Your task to perform on an android device: delete browsing data in the chrome app Image 0: 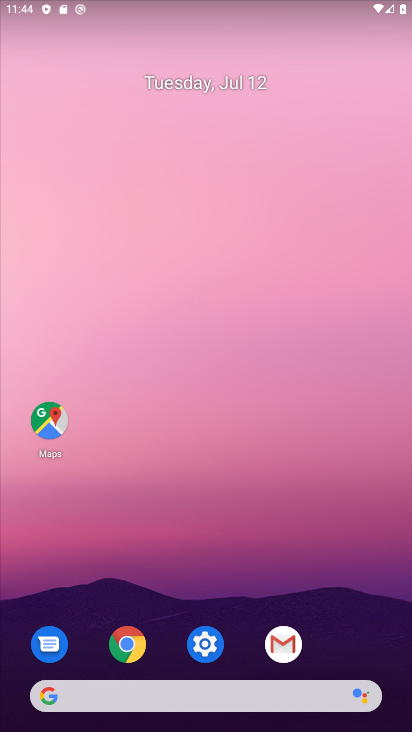
Step 0: drag from (275, 700) to (371, 155)
Your task to perform on an android device: delete browsing data in the chrome app Image 1: 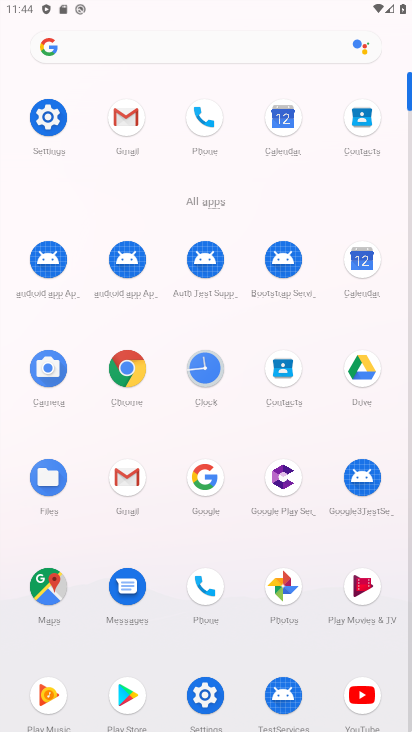
Step 1: click (129, 374)
Your task to perform on an android device: delete browsing data in the chrome app Image 2: 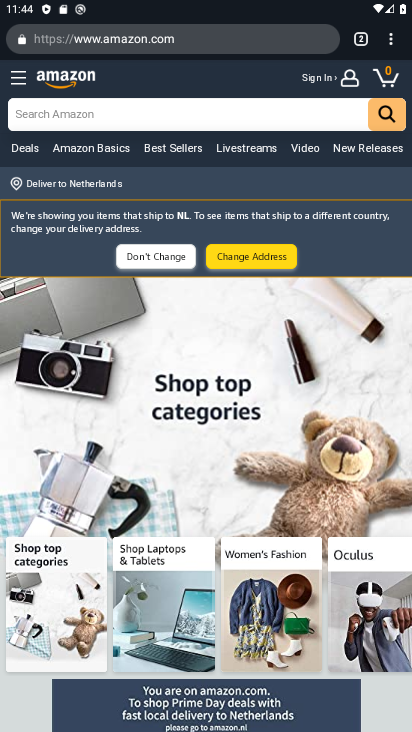
Step 2: click (386, 31)
Your task to perform on an android device: delete browsing data in the chrome app Image 3: 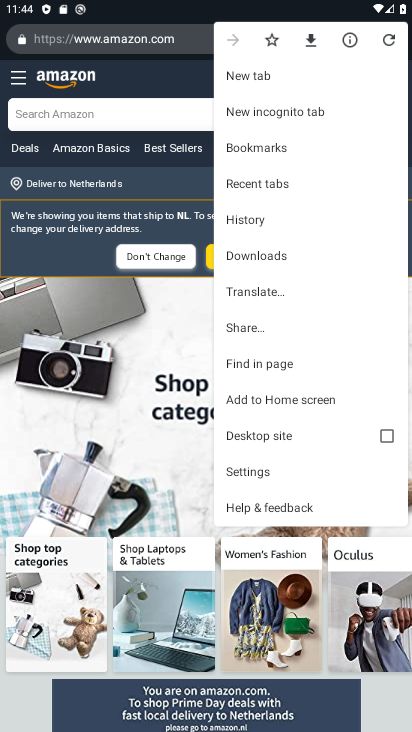
Step 3: click (262, 222)
Your task to perform on an android device: delete browsing data in the chrome app Image 4: 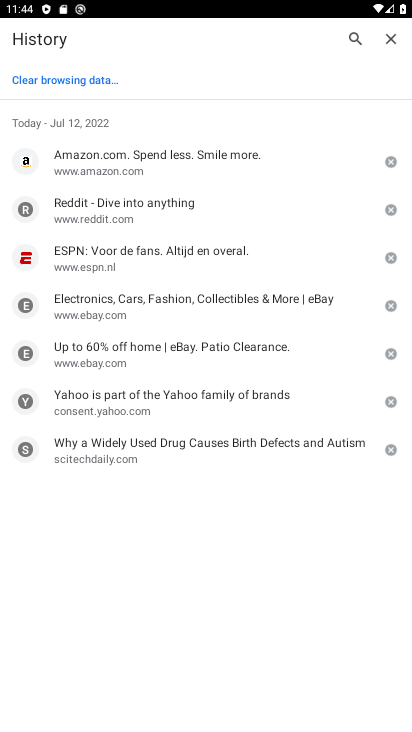
Step 4: click (54, 81)
Your task to perform on an android device: delete browsing data in the chrome app Image 5: 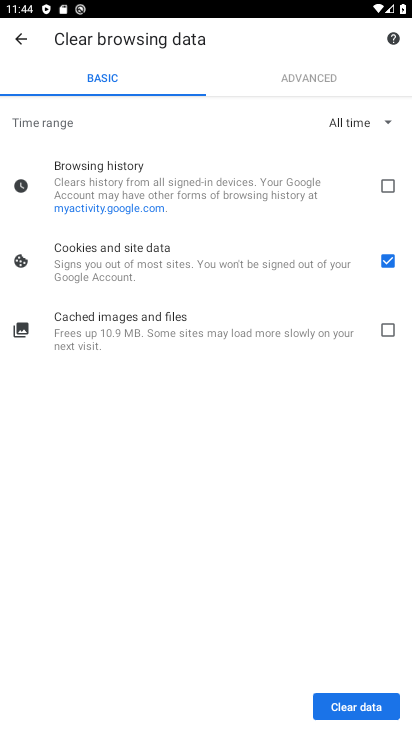
Step 5: click (385, 189)
Your task to perform on an android device: delete browsing data in the chrome app Image 6: 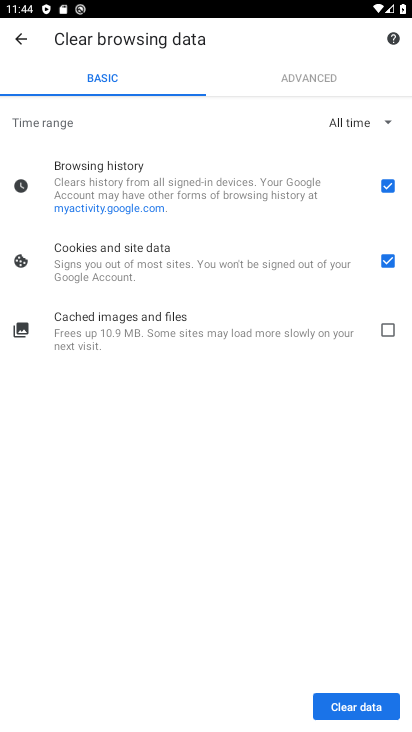
Step 6: click (384, 268)
Your task to perform on an android device: delete browsing data in the chrome app Image 7: 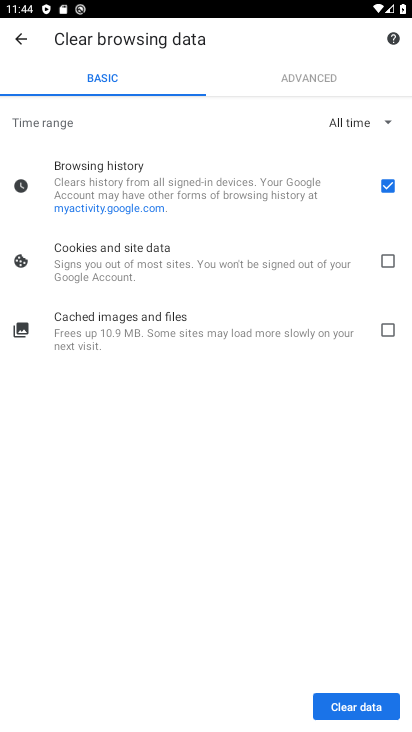
Step 7: click (351, 711)
Your task to perform on an android device: delete browsing data in the chrome app Image 8: 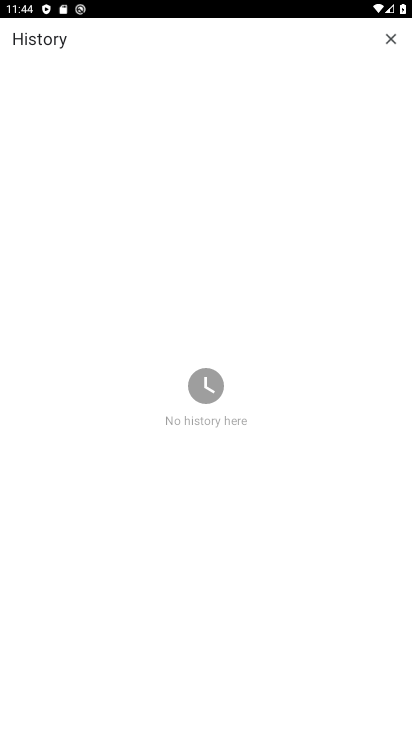
Step 8: task complete